Your task to perform on an android device: find photos in the google photos app Image 0: 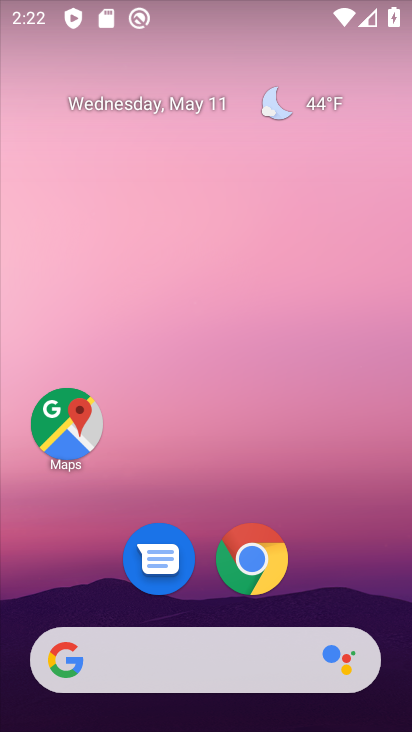
Step 0: drag from (333, 541) to (222, 172)
Your task to perform on an android device: find photos in the google photos app Image 1: 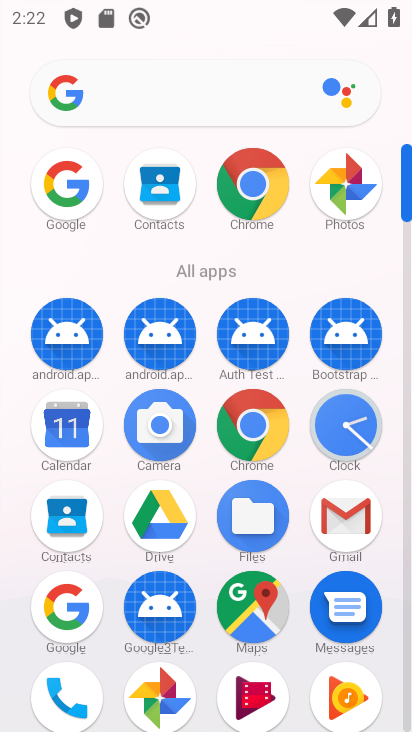
Step 1: click (337, 188)
Your task to perform on an android device: find photos in the google photos app Image 2: 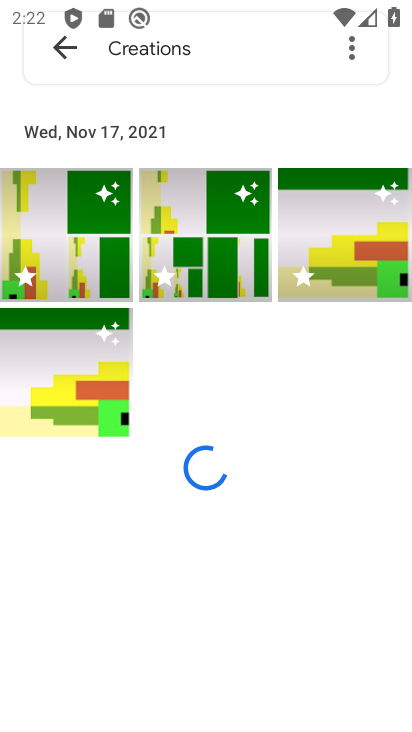
Step 2: click (61, 48)
Your task to perform on an android device: find photos in the google photos app Image 3: 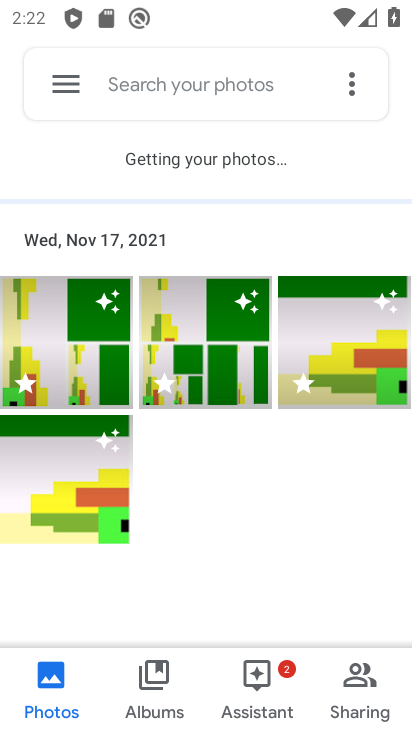
Step 3: task complete